Your task to perform on an android device: open app "Microsoft Excel" (install if not already installed) Image 0: 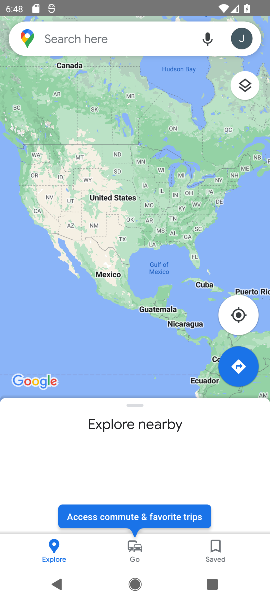
Step 0: click (103, 33)
Your task to perform on an android device: open app "Microsoft Excel" (install if not already installed) Image 1: 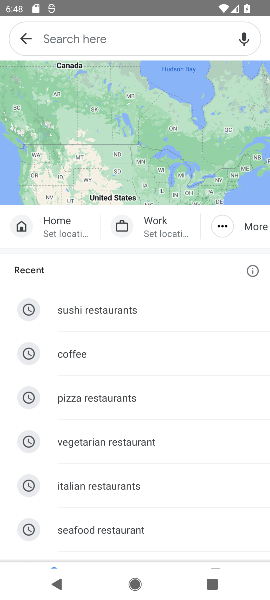
Step 1: click (103, 33)
Your task to perform on an android device: open app "Microsoft Excel" (install if not already installed) Image 2: 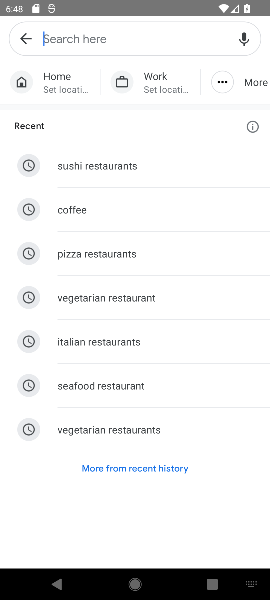
Step 2: type "microsoft"
Your task to perform on an android device: open app "Microsoft Excel" (install if not already installed) Image 3: 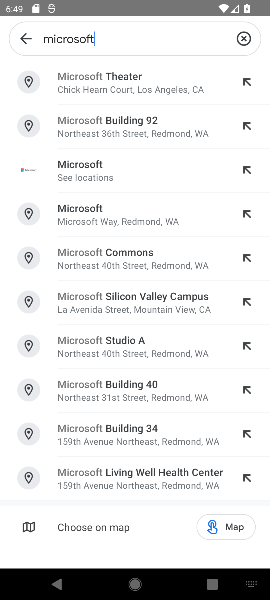
Step 3: task complete